Your task to perform on an android device: all mails in gmail Image 0: 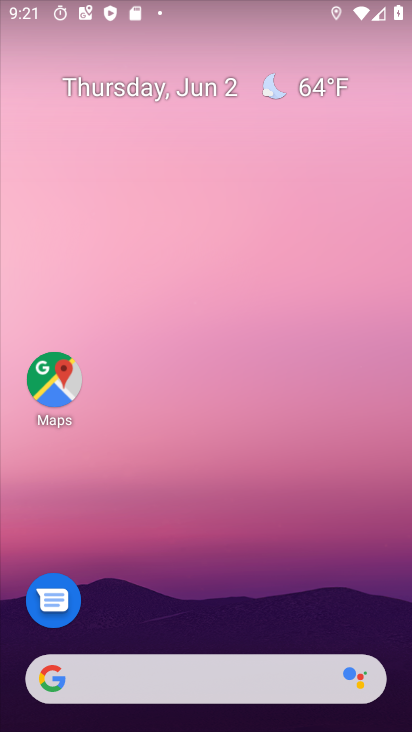
Step 0: drag from (197, 640) to (235, 65)
Your task to perform on an android device: all mails in gmail Image 1: 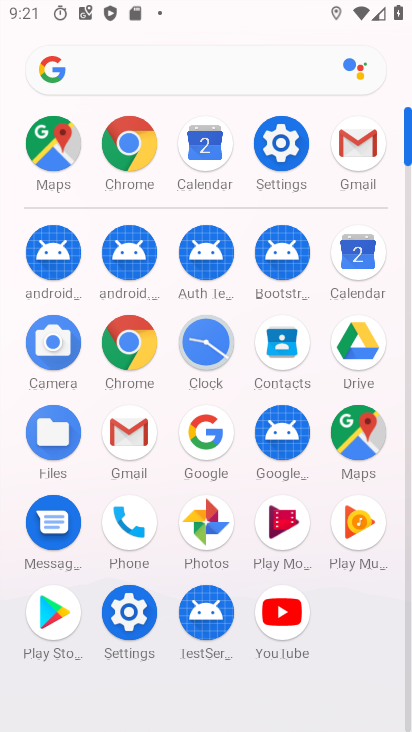
Step 1: click (353, 144)
Your task to perform on an android device: all mails in gmail Image 2: 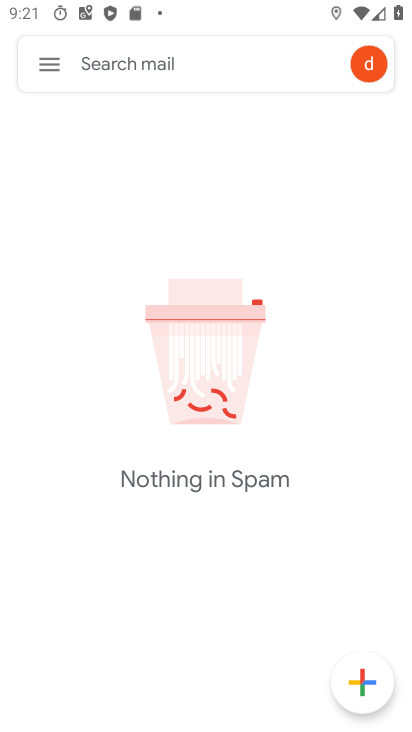
Step 2: click (33, 60)
Your task to perform on an android device: all mails in gmail Image 3: 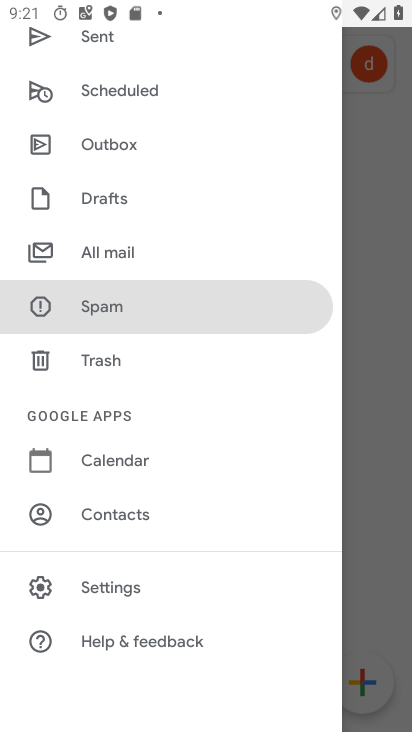
Step 3: click (139, 241)
Your task to perform on an android device: all mails in gmail Image 4: 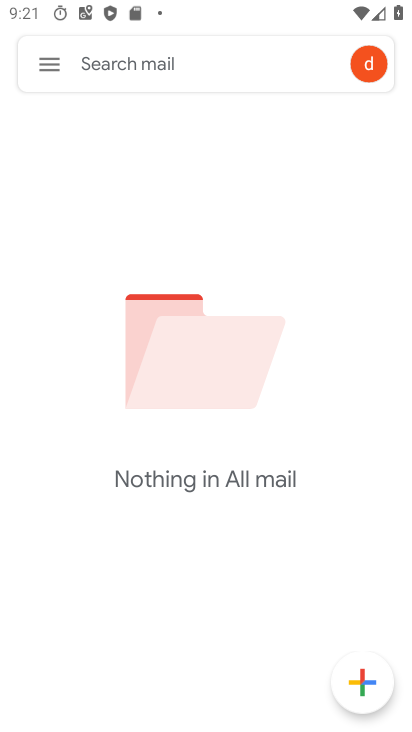
Step 4: task complete